Your task to perform on an android device: set default search engine in the chrome app Image 0: 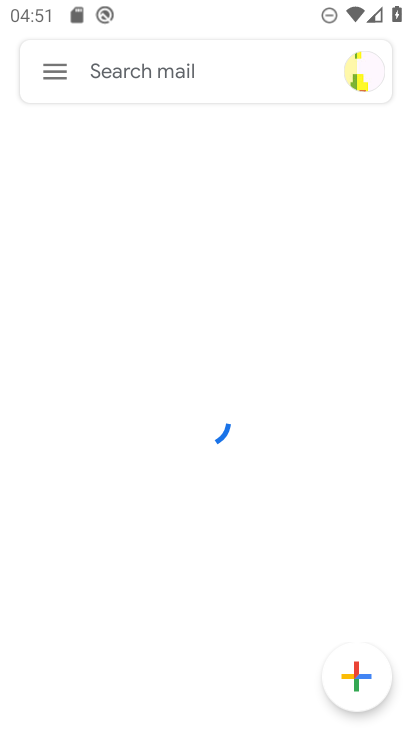
Step 0: press home button
Your task to perform on an android device: set default search engine in the chrome app Image 1: 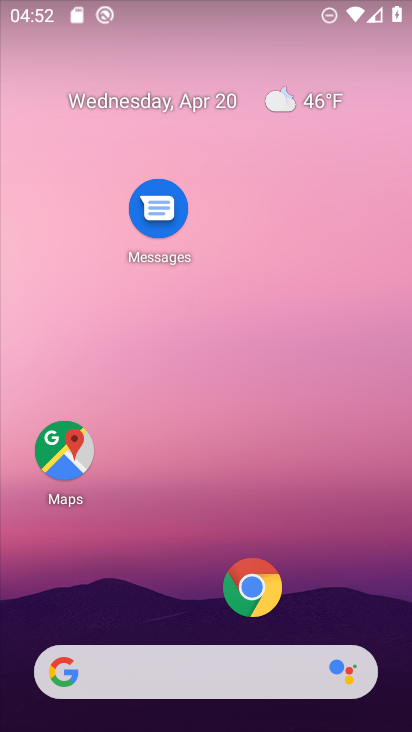
Step 1: click (242, 596)
Your task to perform on an android device: set default search engine in the chrome app Image 2: 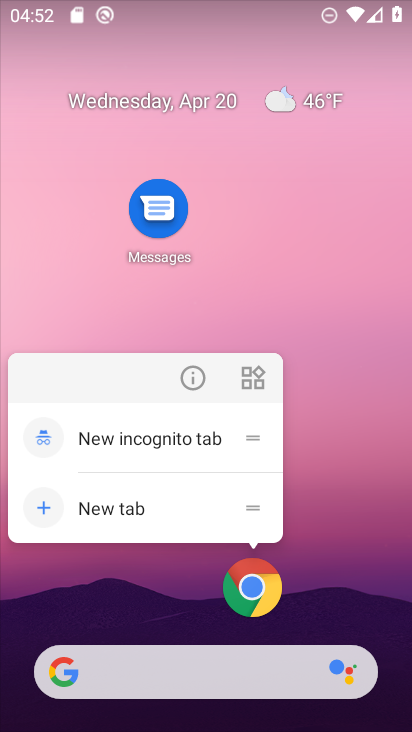
Step 2: click (264, 593)
Your task to perform on an android device: set default search engine in the chrome app Image 3: 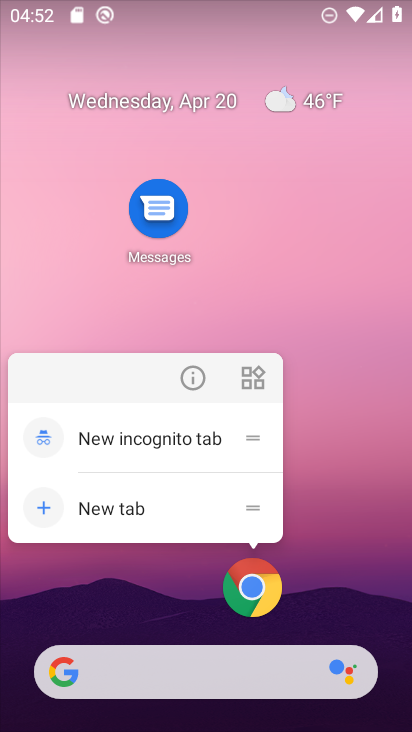
Step 3: click (256, 589)
Your task to perform on an android device: set default search engine in the chrome app Image 4: 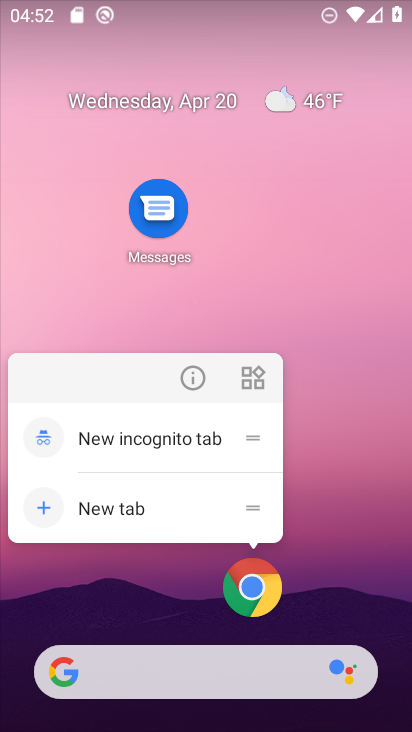
Step 4: click (239, 579)
Your task to perform on an android device: set default search engine in the chrome app Image 5: 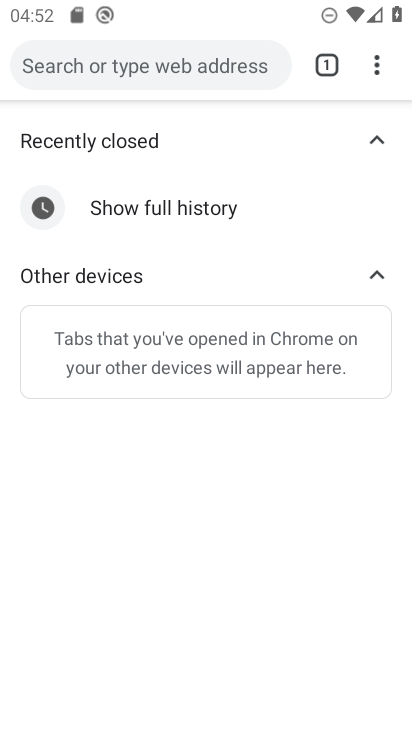
Step 5: click (370, 68)
Your task to perform on an android device: set default search engine in the chrome app Image 6: 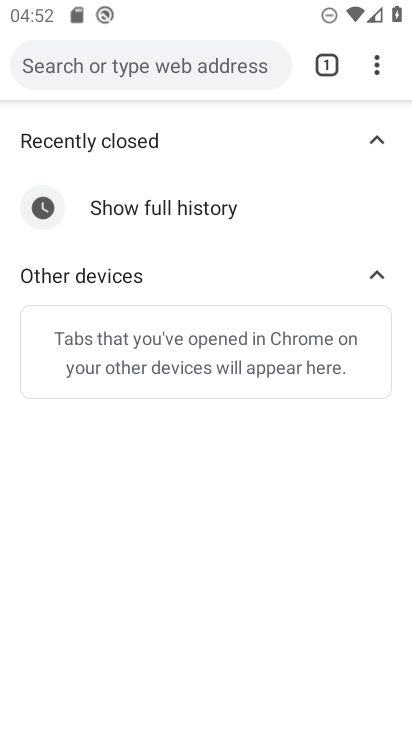
Step 6: click (379, 70)
Your task to perform on an android device: set default search engine in the chrome app Image 7: 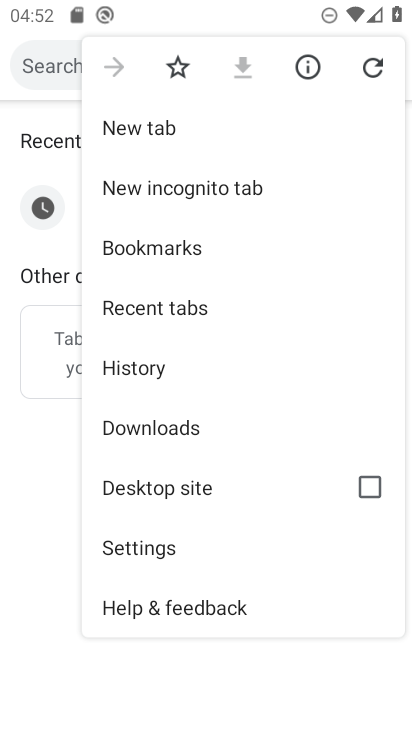
Step 7: click (169, 553)
Your task to perform on an android device: set default search engine in the chrome app Image 8: 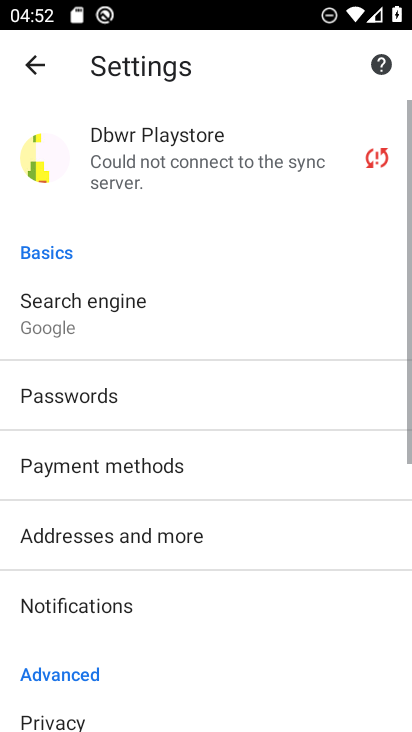
Step 8: click (78, 320)
Your task to perform on an android device: set default search engine in the chrome app Image 9: 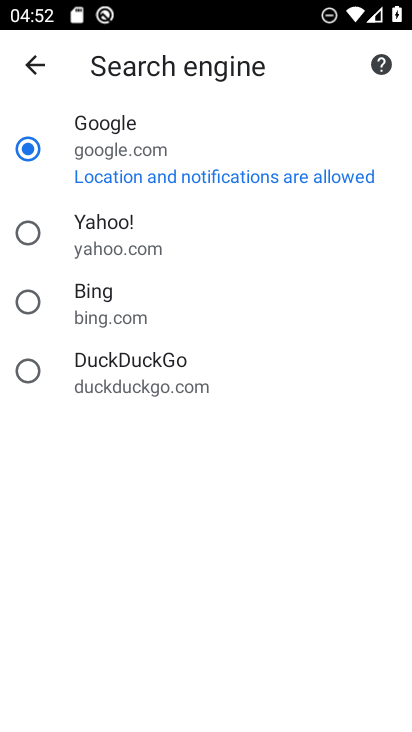
Step 9: click (80, 287)
Your task to perform on an android device: set default search engine in the chrome app Image 10: 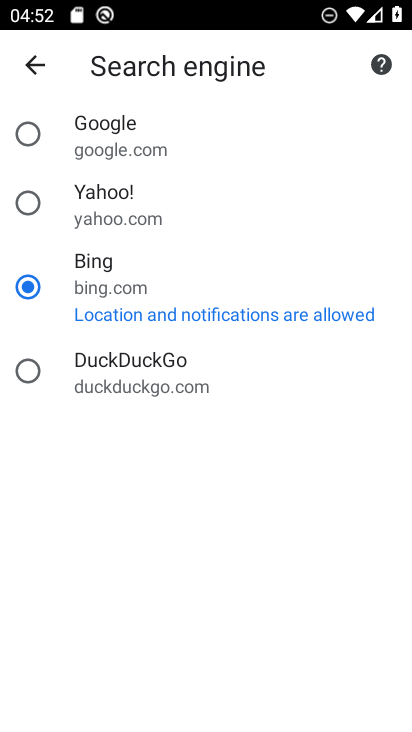
Step 10: task complete